Your task to perform on an android device: Go to Yahoo.com Image 0: 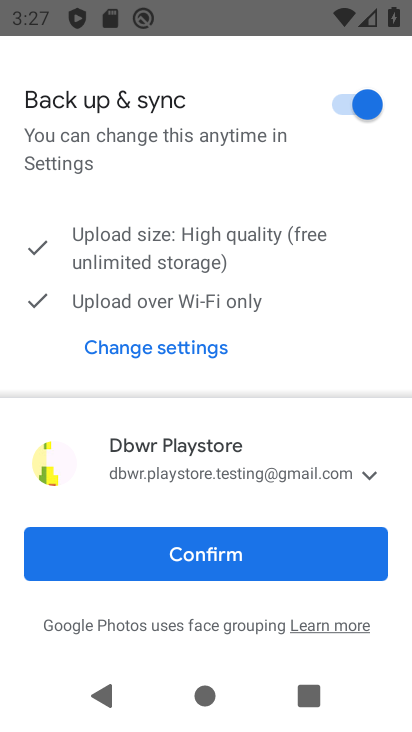
Step 0: press home button
Your task to perform on an android device: Go to Yahoo.com Image 1: 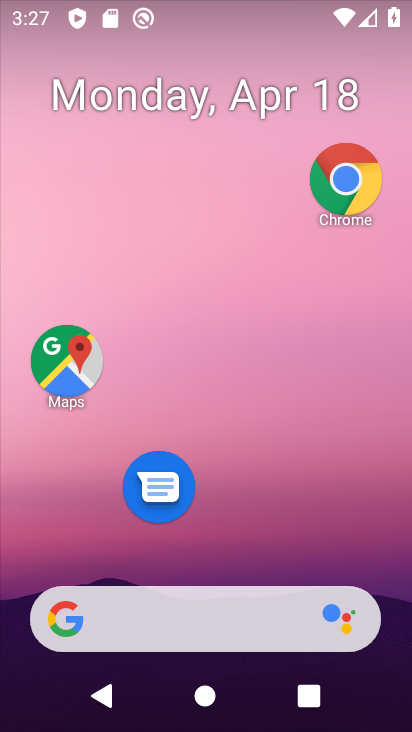
Step 1: drag from (204, 623) to (361, 20)
Your task to perform on an android device: Go to Yahoo.com Image 2: 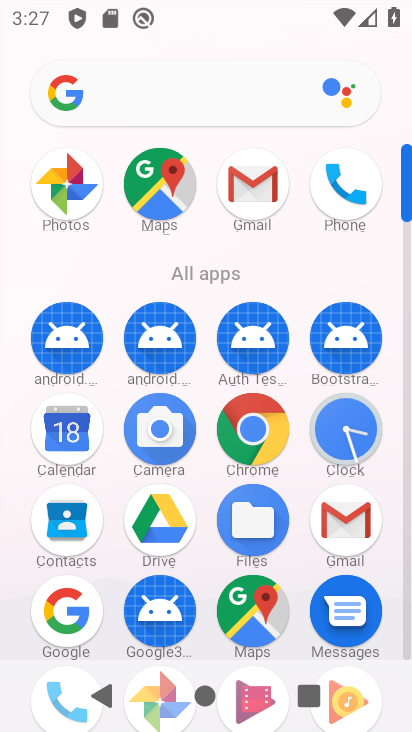
Step 2: click (248, 447)
Your task to perform on an android device: Go to Yahoo.com Image 3: 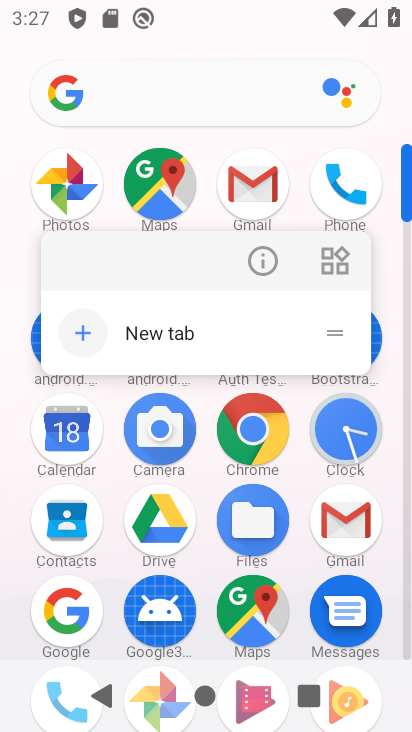
Step 3: click (259, 435)
Your task to perform on an android device: Go to Yahoo.com Image 4: 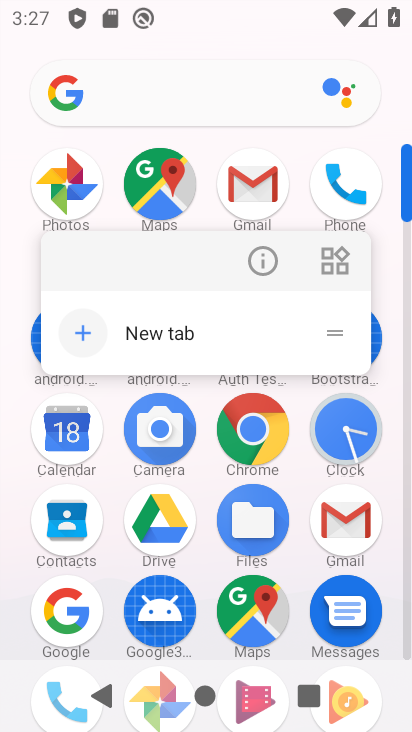
Step 4: click (254, 438)
Your task to perform on an android device: Go to Yahoo.com Image 5: 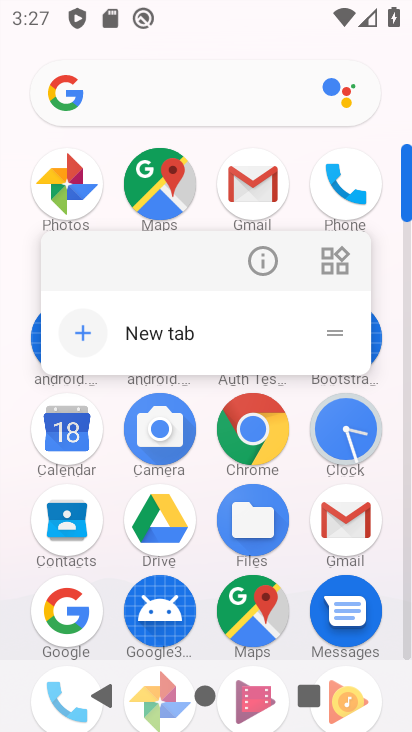
Step 5: click (245, 446)
Your task to perform on an android device: Go to Yahoo.com Image 6: 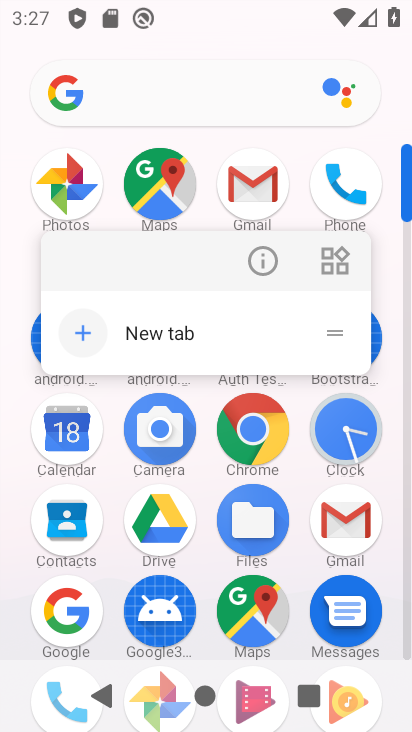
Step 6: click (255, 432)
Your task to perform on an android device: Go to Yahoo.com Image 7: 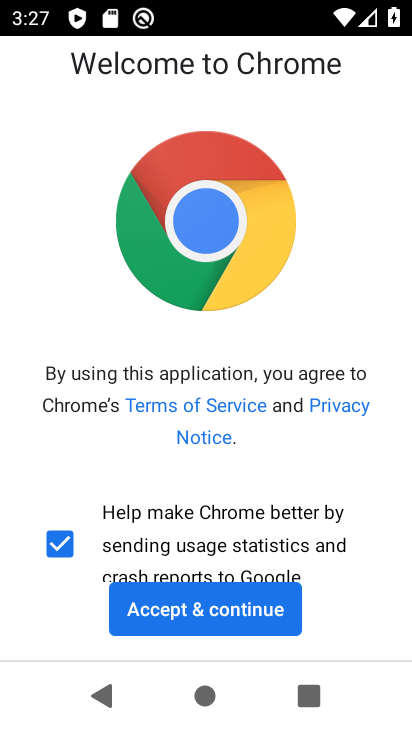
Step 7: click (170, 608)
Your task to perform on an android device: Go to Yahoo.com Image 8: 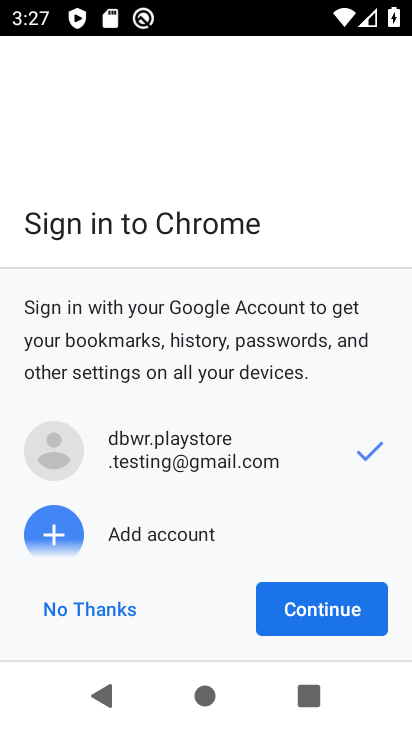
Step 8: click (268, 618)
Your task to perform on an android device: Go to Yahoo.com Image 9: 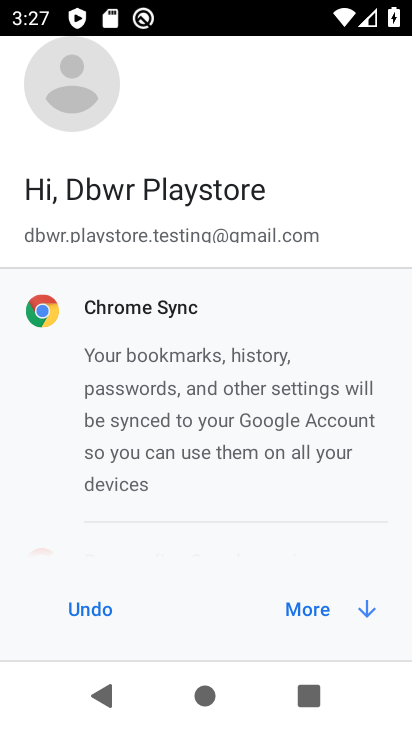
Step 9: click (288, 605)
Your task to perform on an android device: Go to Yahoo.com Image 10: 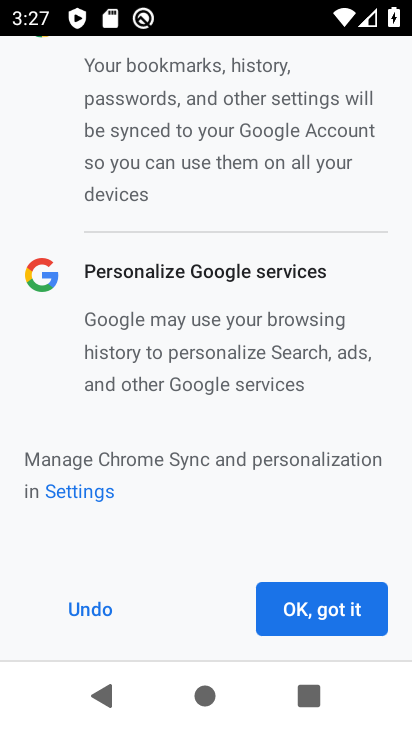
Step 10: click (288, 605)
Your task to perform on an android device: Go to Yahoo.com Image 11: 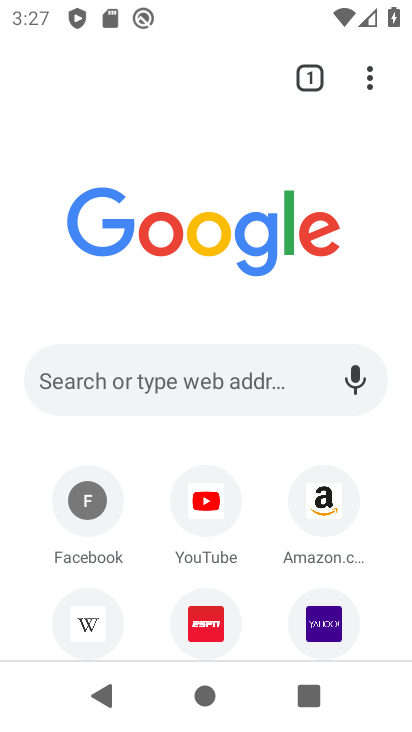
Step 11: drag from (277, 603) to (315, 237)
Your task to perform on an android device: Go to Yahoo.com Image 12: 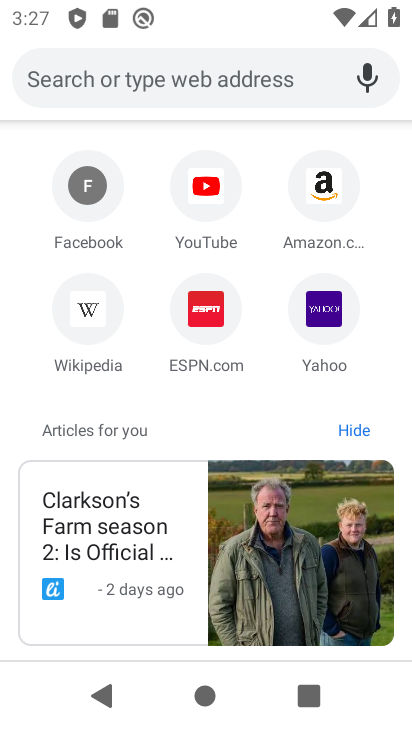
Step 12: click (327, 309)
Your task to perform on an android device: Go to Yahoo.com Image 13: 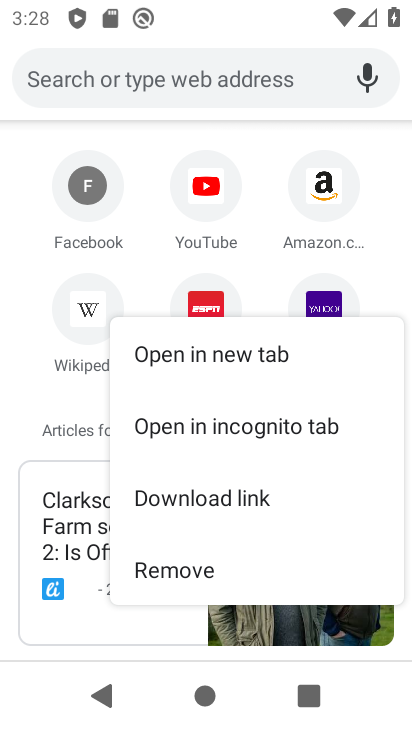
Step 13: click (325, 298)
Your task to perform on an android device: Go to Yahoo.com Image 14: 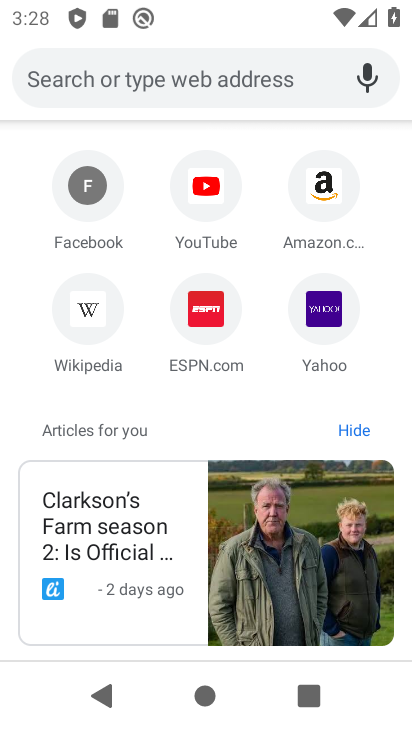
Step 14: click (321, 311)
Your task to perform on an android device: Go to Yahoo.com Image 15: 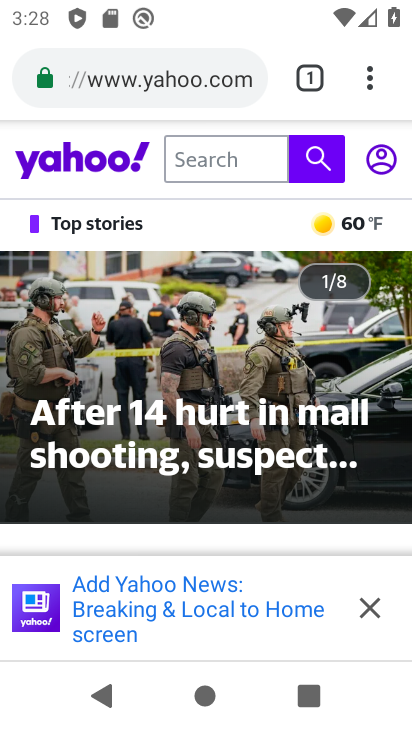
Step 15: task complete